Your task to perform on an android device: Open Youtube and go to "Your channel" Image 0: 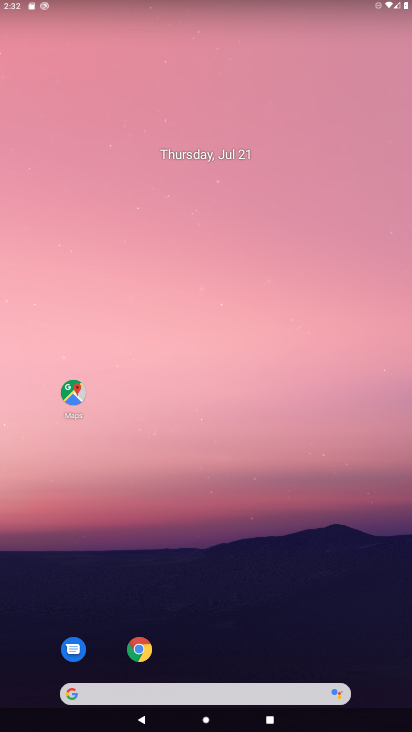
Step 0: drag from (231, 614) to (283, 60)
Your task to perform on an android device: Open Youtube and go to "Your channel" Image 1: 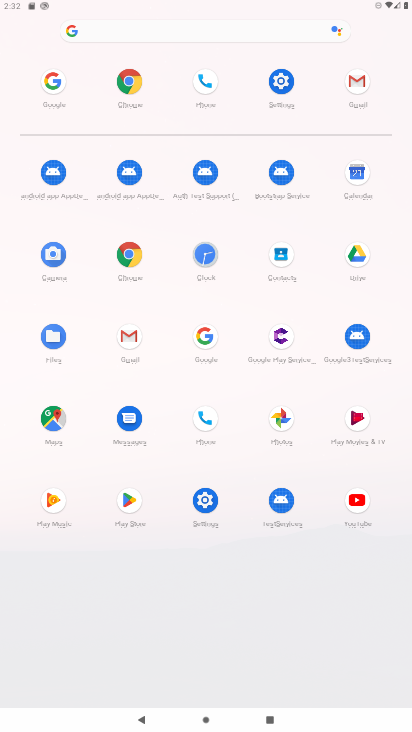
Step 1: click (347, 514)
Your task to perform on an android device: Open Youtube and go to "Your channel" Image 2: 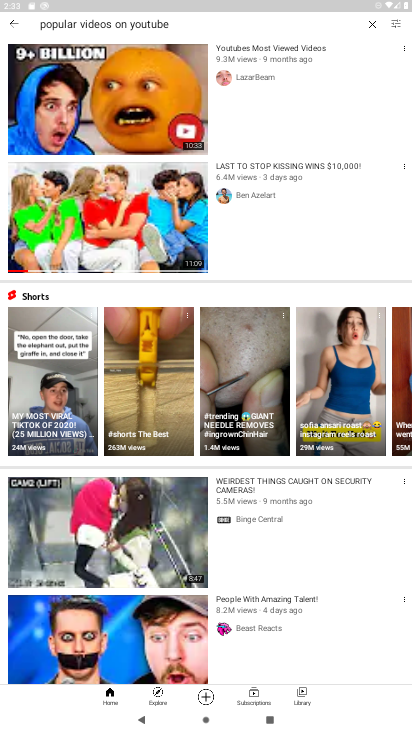
Step 2: click (14, 32)
Your task to perform on an android device: Open Youtube and go to "Your channel" Image 3: 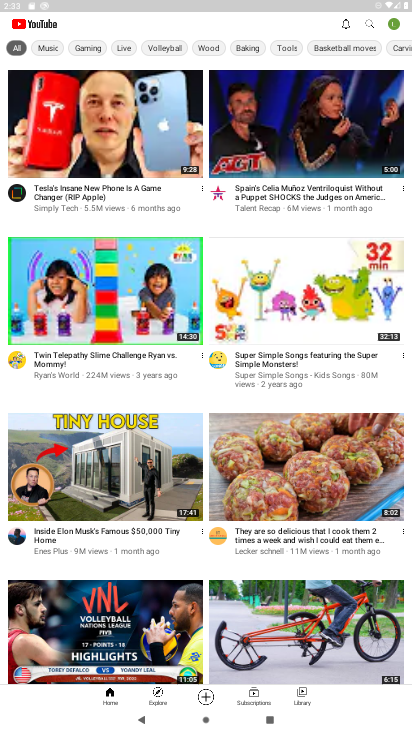
Step 3: click (390, 21)
Your task to perform on an android device: Open Youtube and go to "Your channel" Image 4: 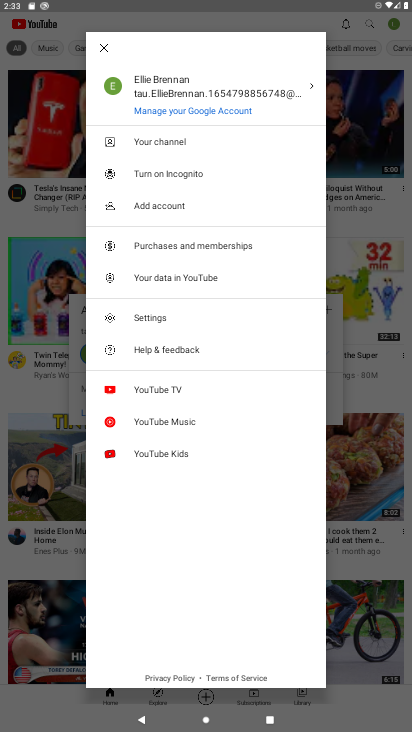
Step 4: click (146, 149)
Your task to perform on an android device: Open Youtube and go to "Your channel" Image 5: 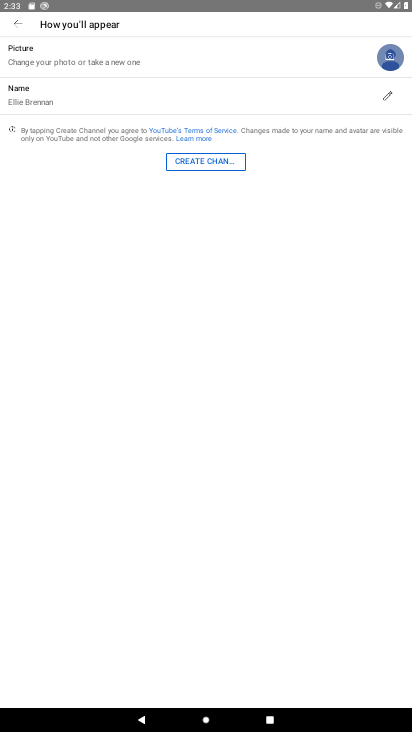
Step 5: task complete